Your task to perform on an android device: clear history in the chrome app Image 0: 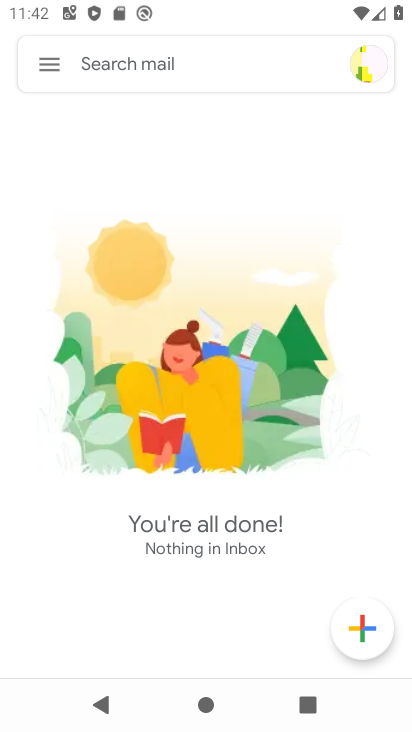
Step 0: press home button
Your task to perform on an android device: clear history in the chrome app Image 1: 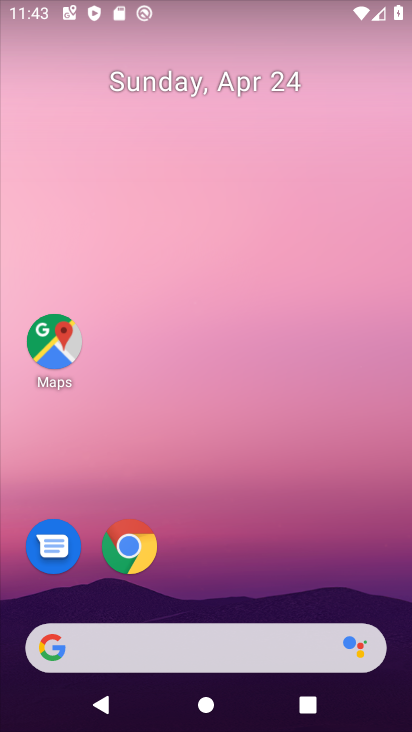
Step 1: click (124, 533)
Your task to perform on an android device: clear history in the chrome app Image 2: 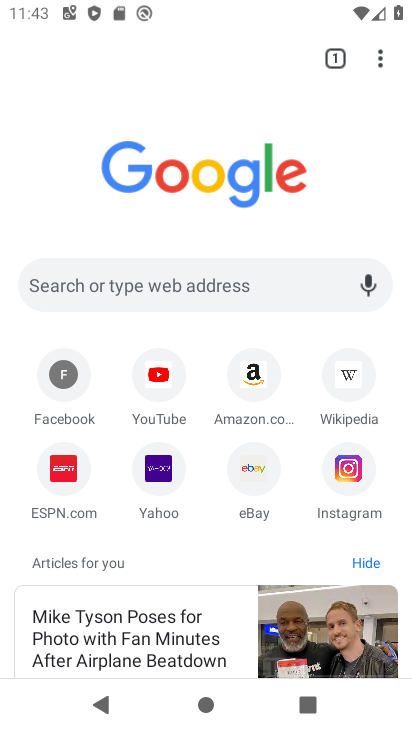
Step 2: drag from (365, 57) to (179, 334)
Your task to perform on an android device: clear history in the chrome app Image 3: 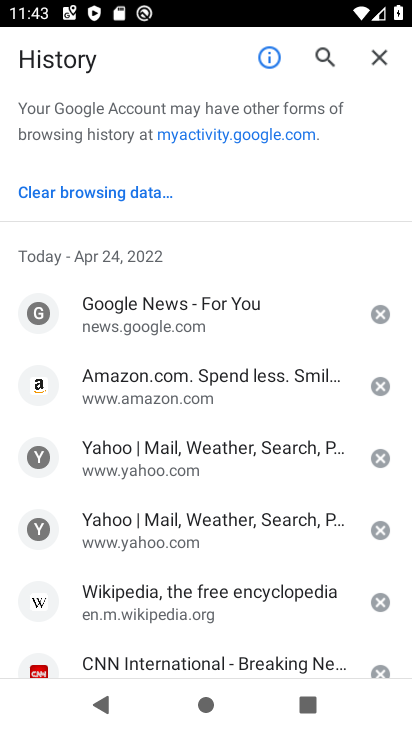
Step 3: click (98, 186)
Your task to perform on an android device: clear history in the chrome app Image 4: 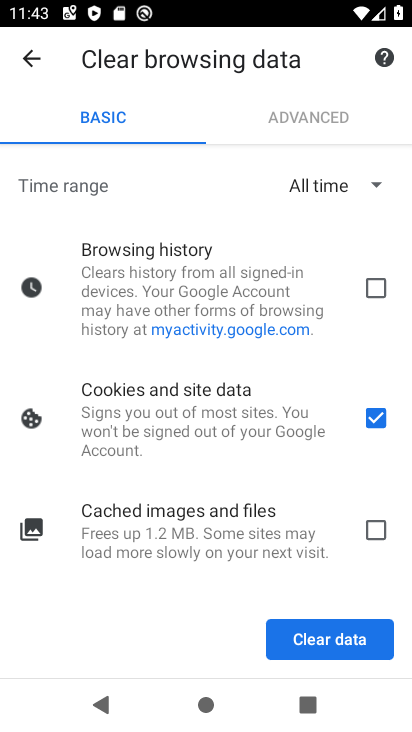
Step 4: click (374, 534)
Your task to perform on an android device: clear history in the chrome app Image 5: 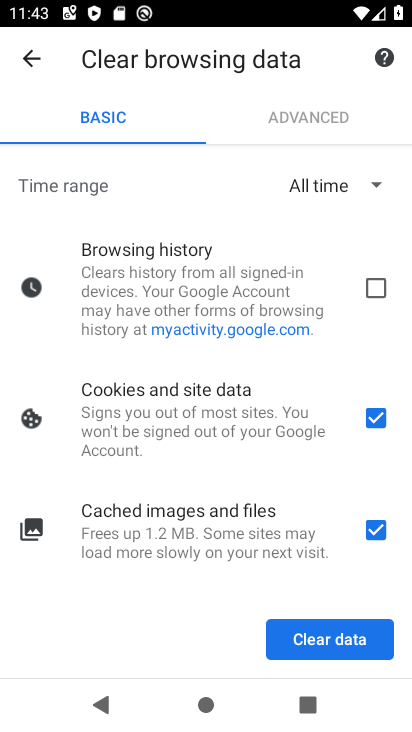
Step 5: click (370, 281)
Your task to perform on an android device: clear history in the chrome app Image 6: 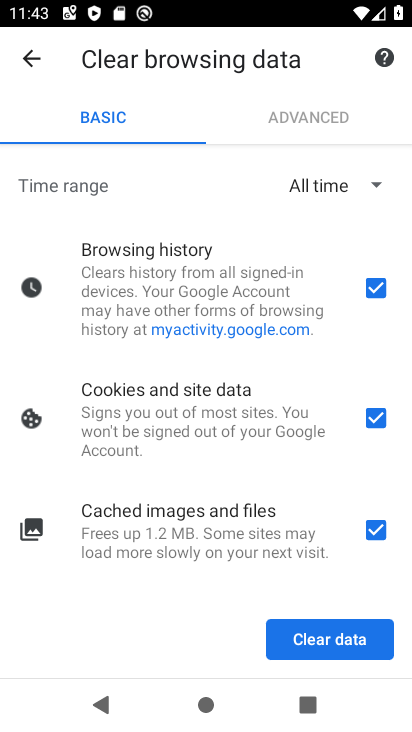
Step 6: click (338, 646)
Your task to perform on an android device: clear history in the chrome app Image 7: 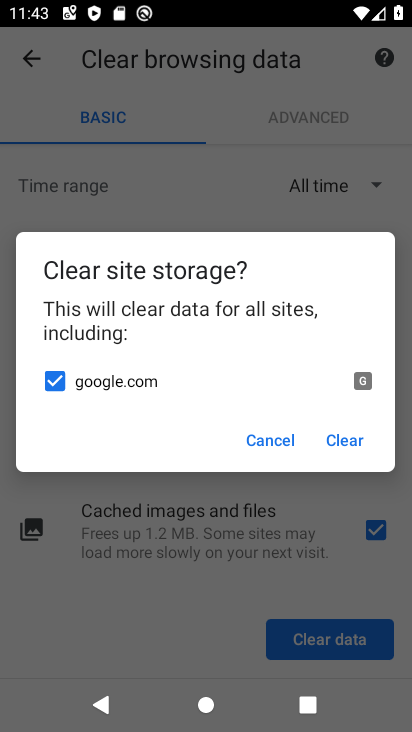
Step 7: click (344, 443)
Your task to perform on an android device: clear history in the chrome app Image 8: 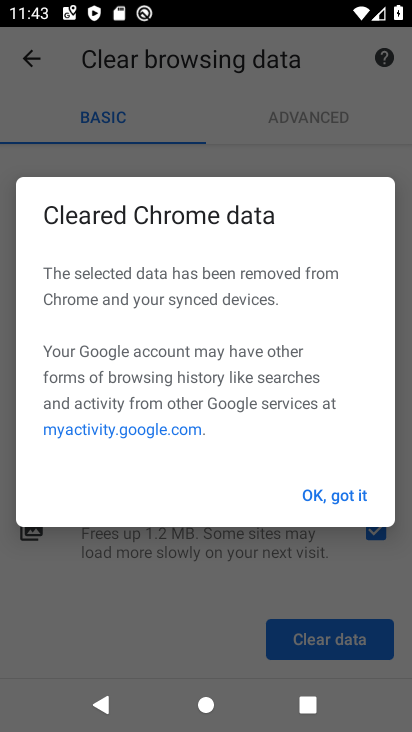
Step 8: task complete